Your task to perform on an android device: open chrome privacy settings Image 0: 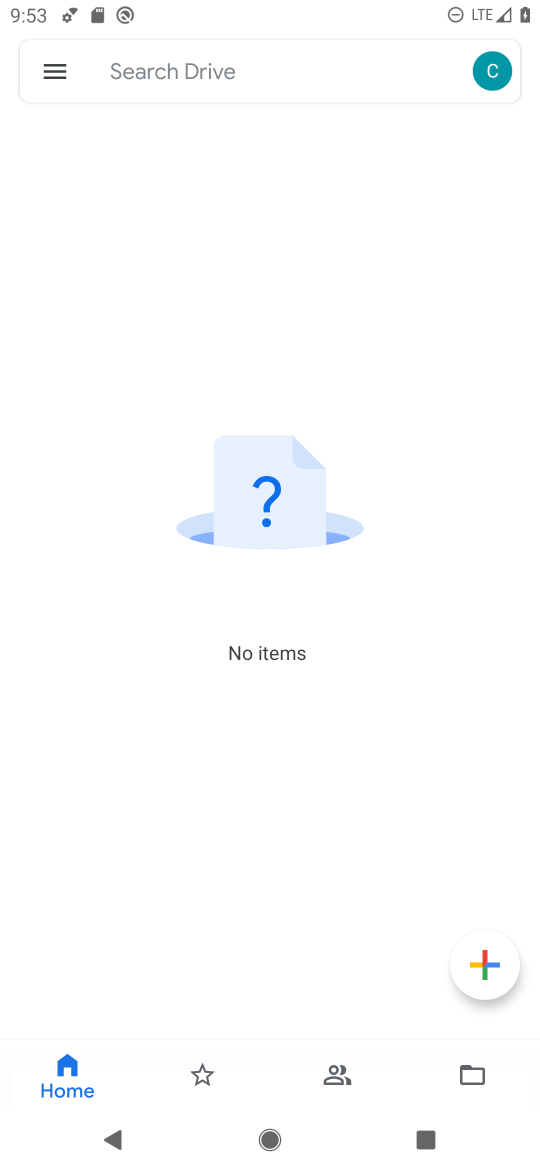
Step 0: press home button
Your task to perform on an android device: open chrome privacy settings Image 1: 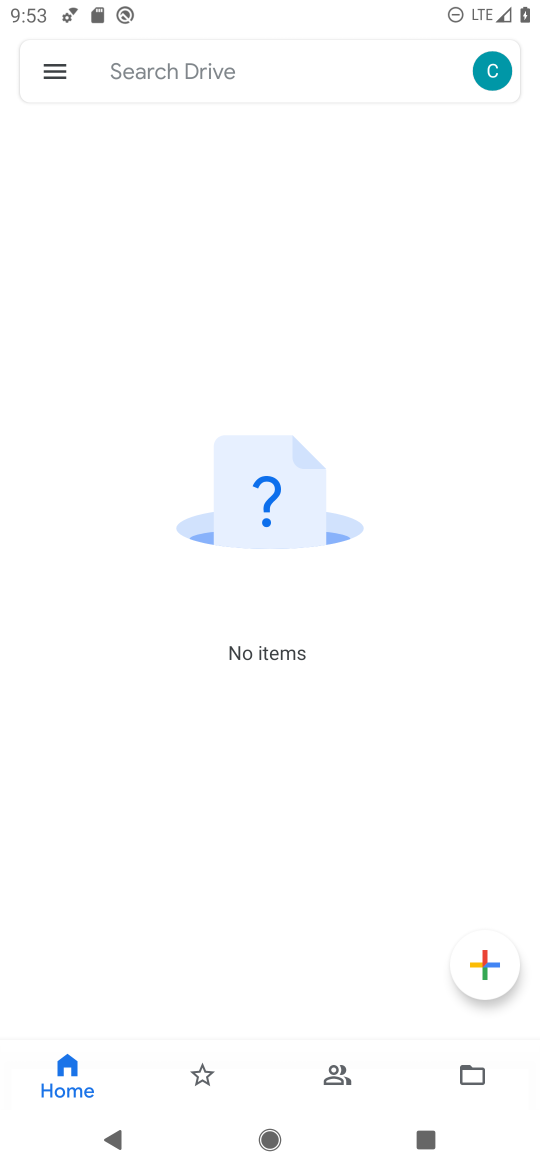
Step 1: press home button
Your task to perform on an android device: open chrome privacy settings Image 2: 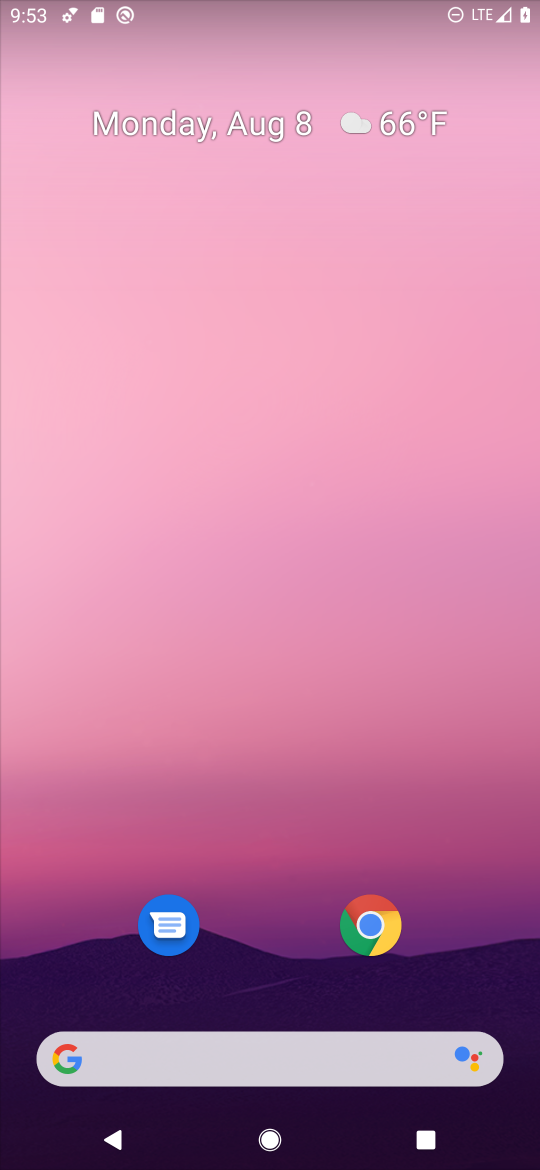
Step 2: drag from (274, 925) to (289, 245)
Your task to perform on an android device: open chrome privacy settings Image 3: 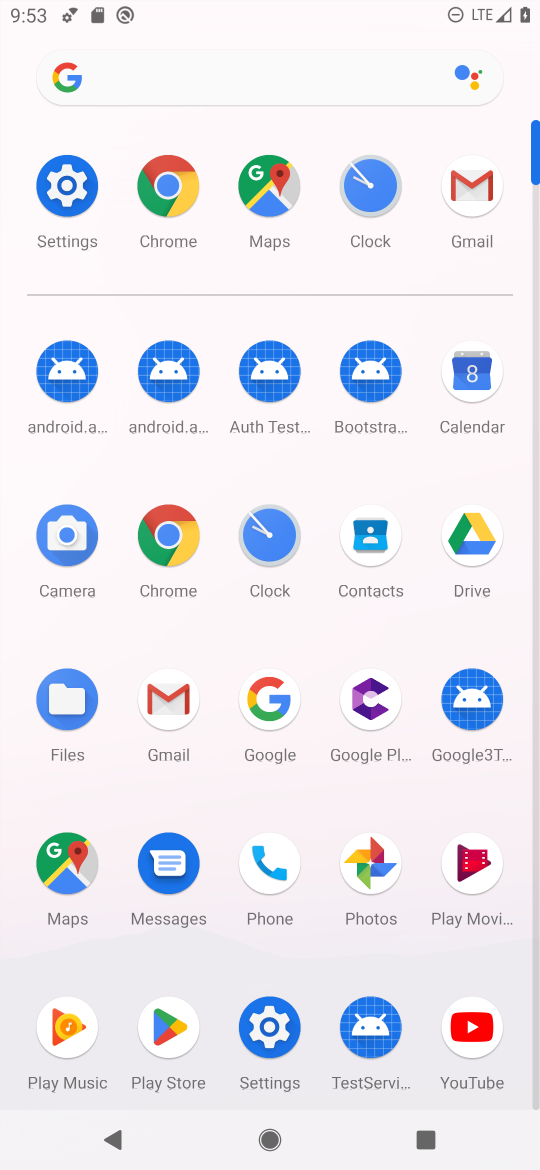
Step 3: click (163, 536)
Your task to perform on an android device: open chrome privacy settings Image 4: 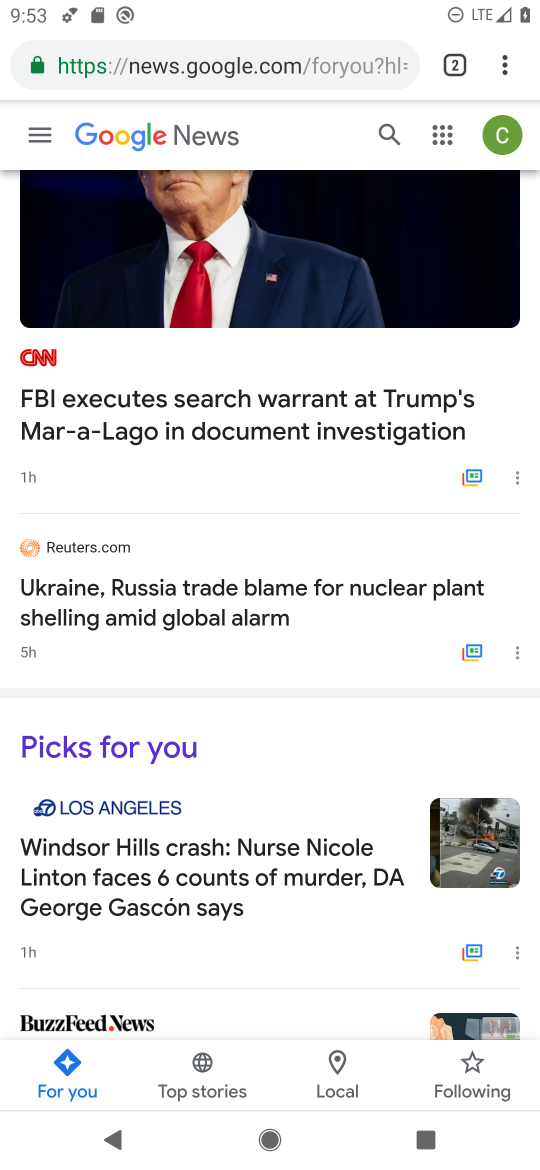
Step 4: drag from (511, 71) to (332, 848)
Your task to perform on an android device: open chrome privacy settings Image 5: 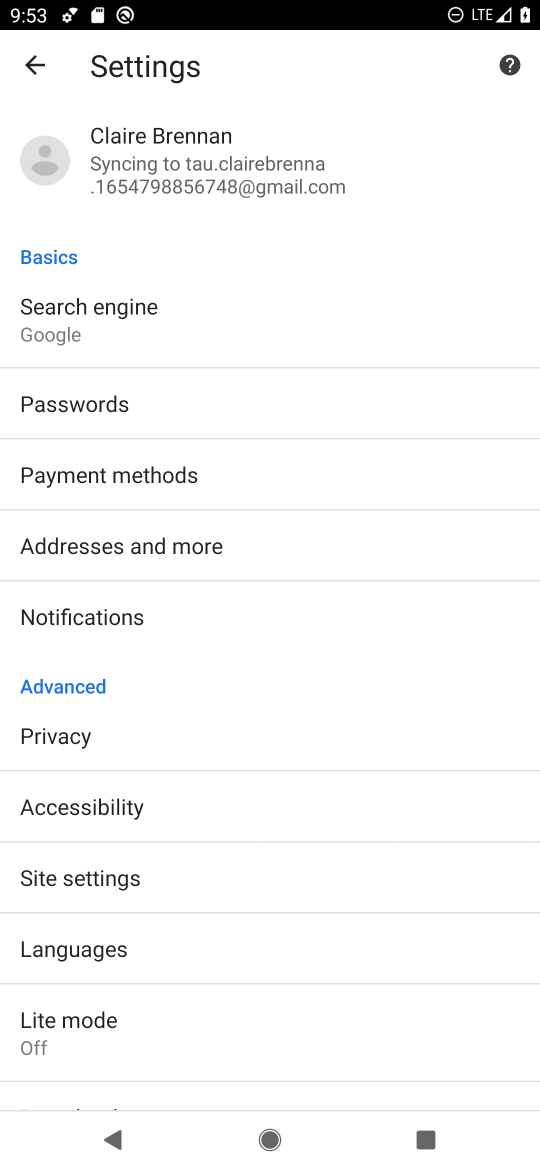
Step 5: drag from (164, 940) to (266, 539)
Your task to perform on an android device: open chrome privacy settings Image 6: 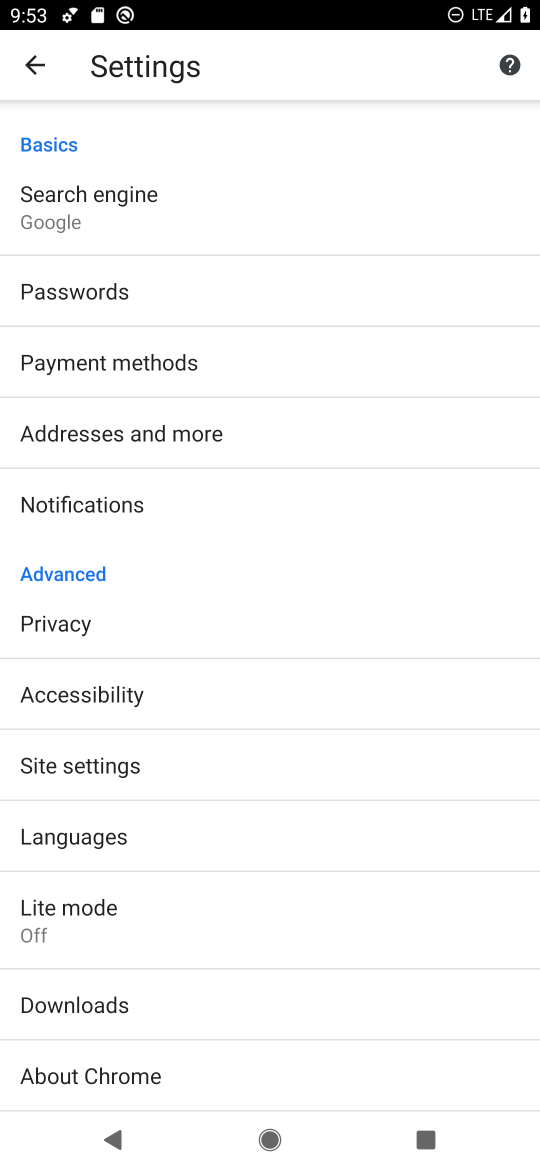
Step 6: click (86, 612)
Your task to perform on an android device: open chrome privacy settings Image 7: 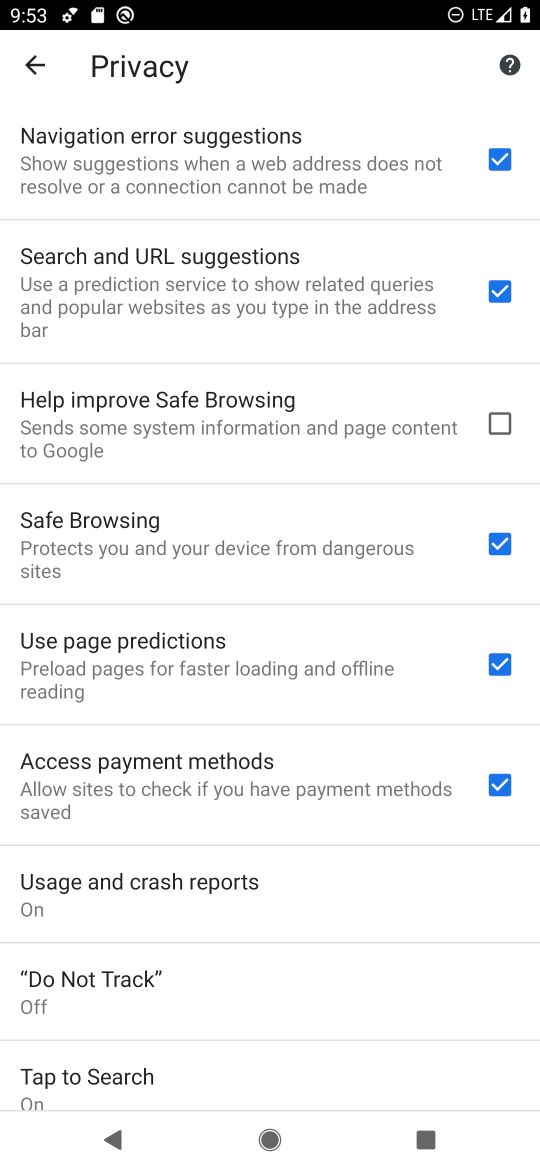
Step 7: task complete